Your task to perform on an android device: Open ESPN.com Image 0: 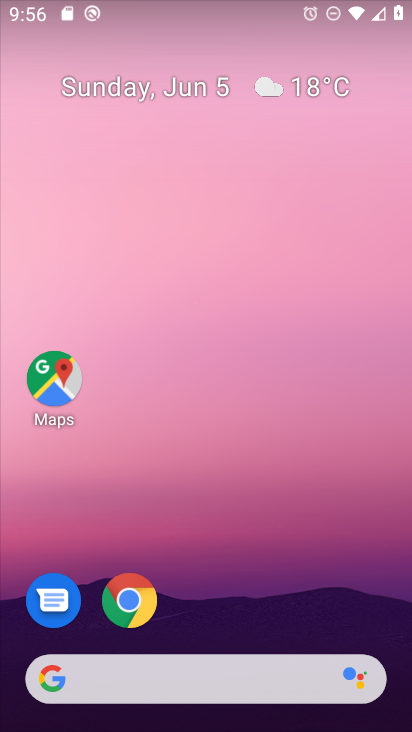
Step 0: click (268, 674)
Your task to perform on an android device: Open ESPN.com Image 1: 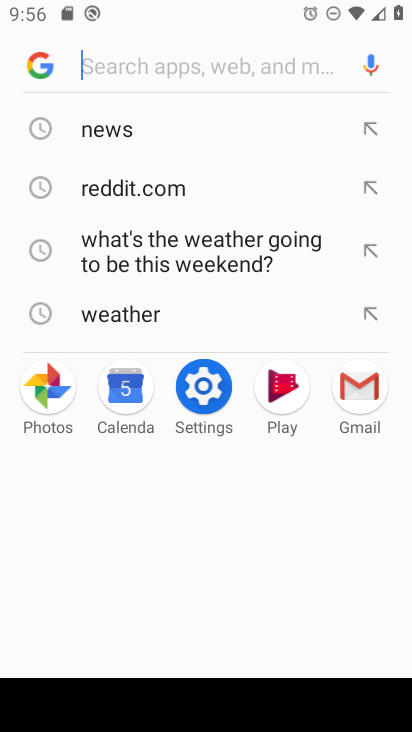
Step 1: type "espn.com"
Your task to perform on an android device: Open ESPN.com Image 2: 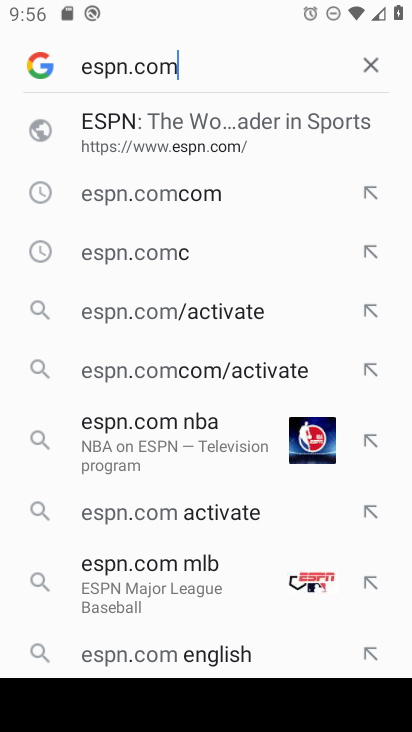
Step 2: click (90, 141)
Your task to perform on an android device: Open ESPN.com Image 3: 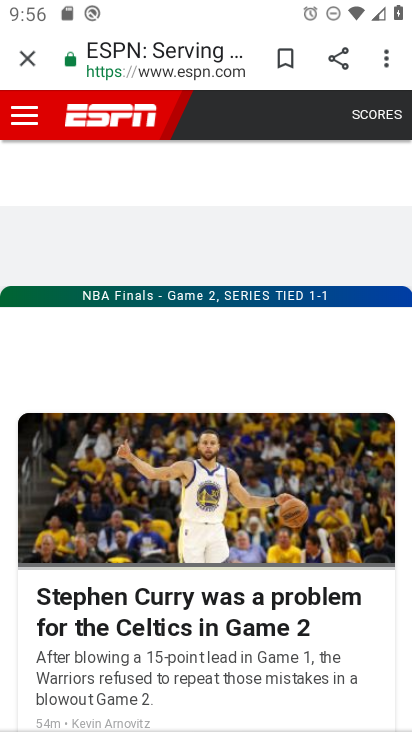
Step 3: task complete